Your task to perform on an android device: Open eBay Image 0: 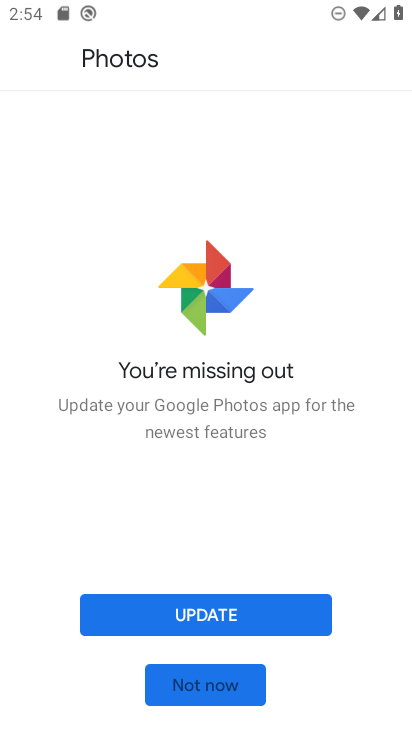
Step 0: press home button
Your task to perform on an android device: Open eBay Image 1: 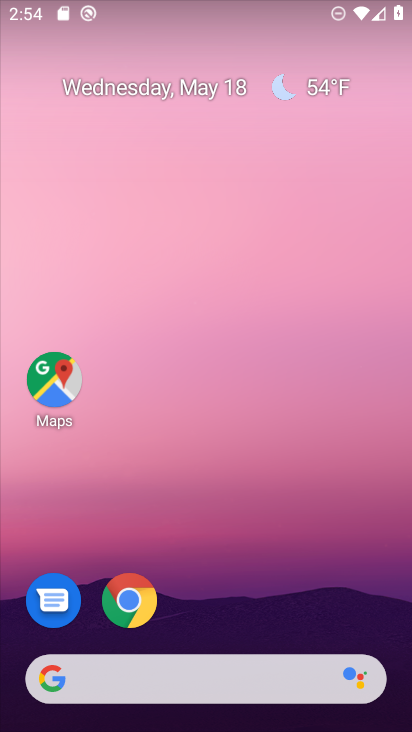
Step 1: click (133, 586)
Your task to perform on an android device: Open eBay Image 2: 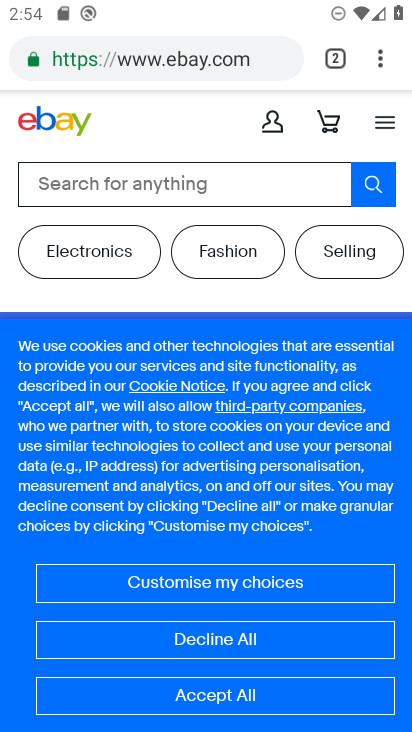
Step 2: click (80, 125)
Your task to perform on an android device: Open eBay Image 3: 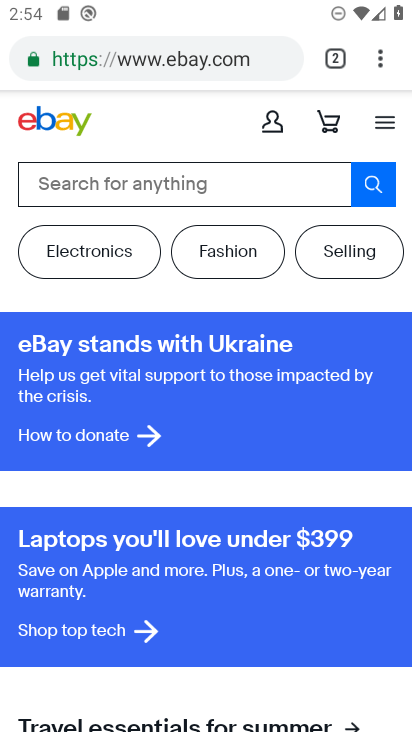
Step 3: task complete